Your task to perform on an android device: Toggle the flashlight Image 0: 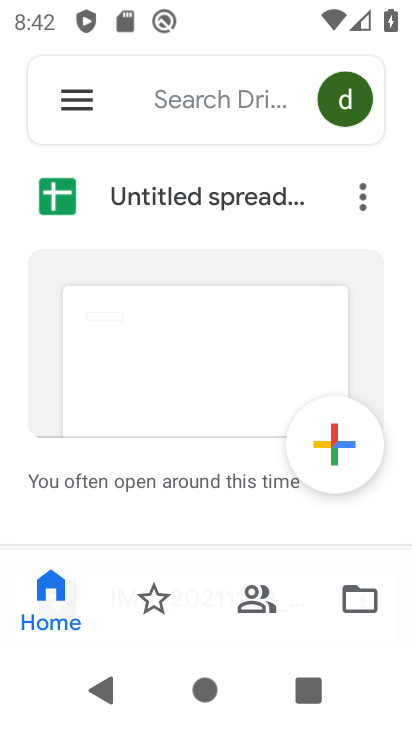
Step 0: press home button
Your task to perform on an android device: Toggle the flashlight Image 1: 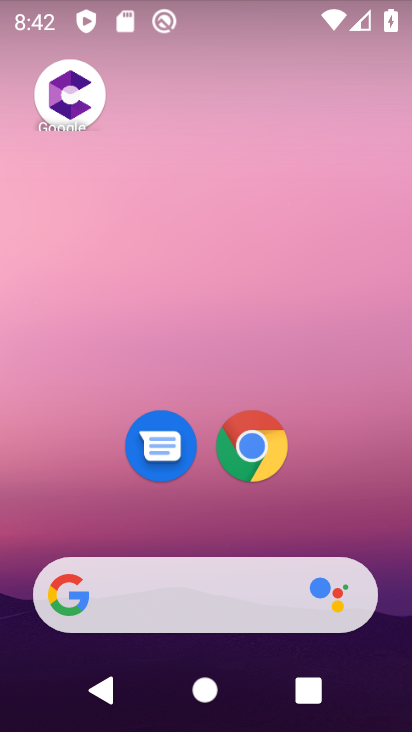
Step 1: task complete